Your task to perform on an android device: choose inbox layout in the gmail app Image 0: 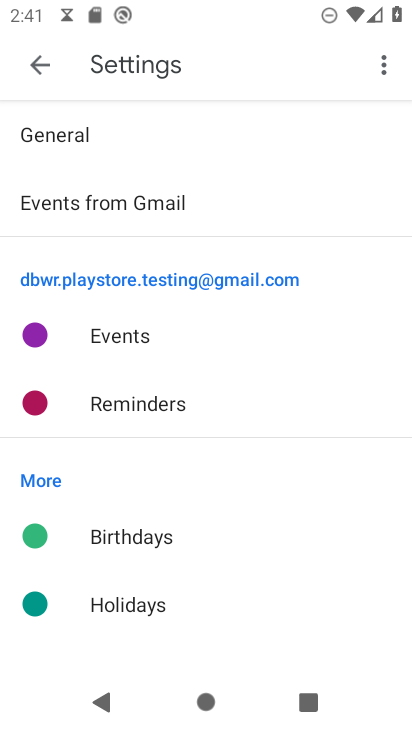
Step 0: press home button
Your task to perform on an android device: choose inbox layout in the gmail app Image 1: 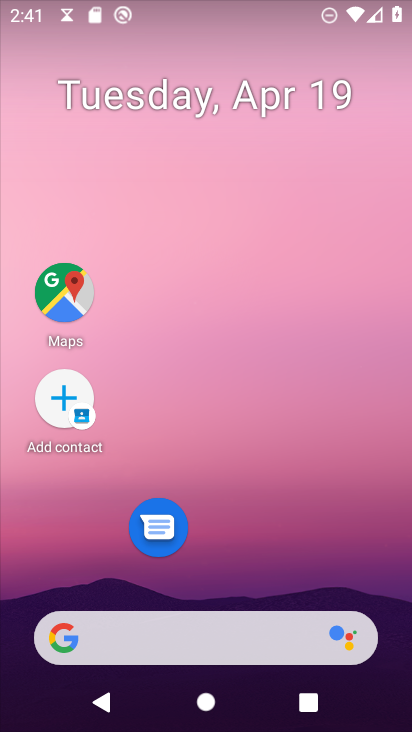
Step 1: drag from (238, 591) to (248, 29)
Your task to perform on an android device: choose inbox layout in the gmail app Image 2: 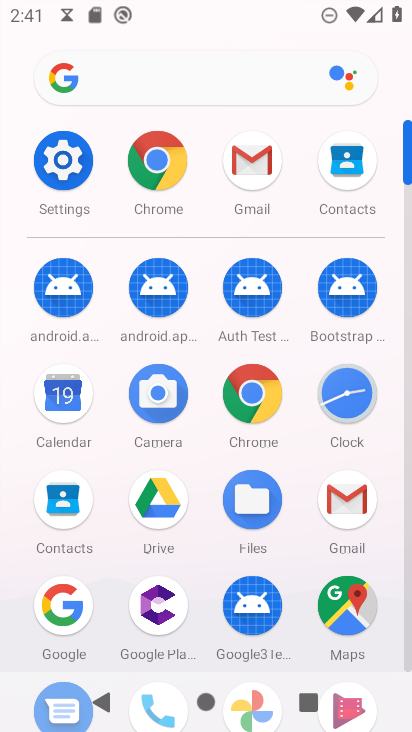
Step 2: click (252, 163)
Your task to perform on an android device: choose inbox layout in the gmail app Image 3: 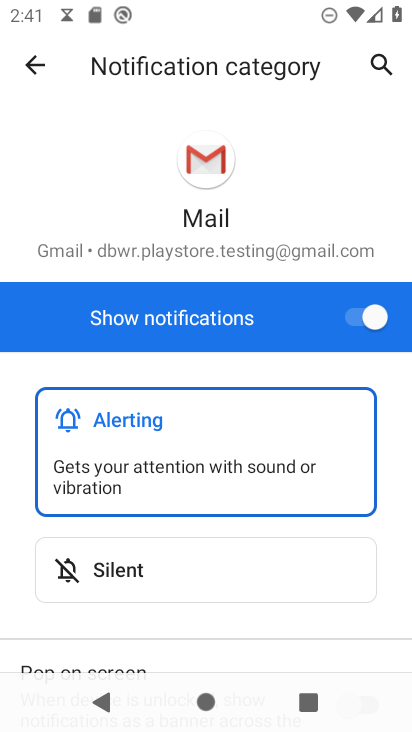
Step 3: press back button
Your task to perform on an android device: choose inbox layout in the gmail app Image 4: 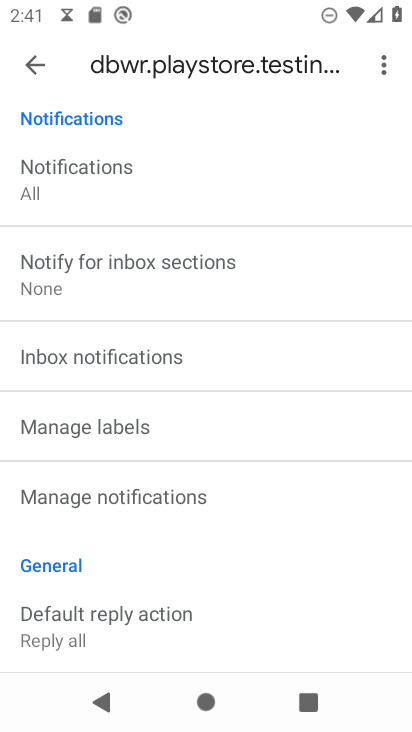
Step 4: drag from (153, 253) to (171, 396)
Your task to perform on an android device: choose inbox layout in the gmail app Image 5: 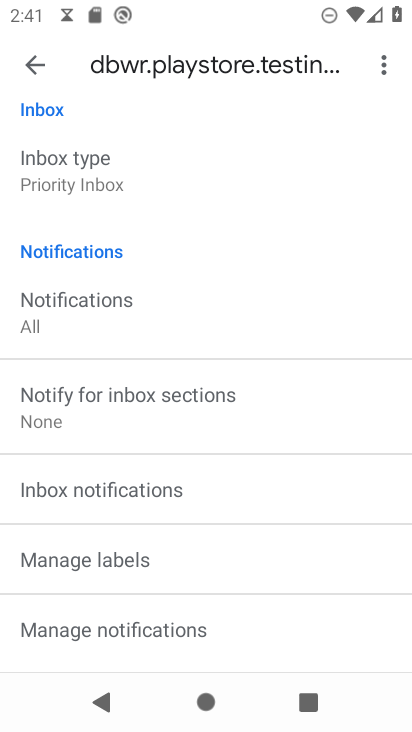
Step 5: drag from (133, 229) to (181, 379)
Your task to perform on an android device: choose inbox layout in the gmail app Image 6: 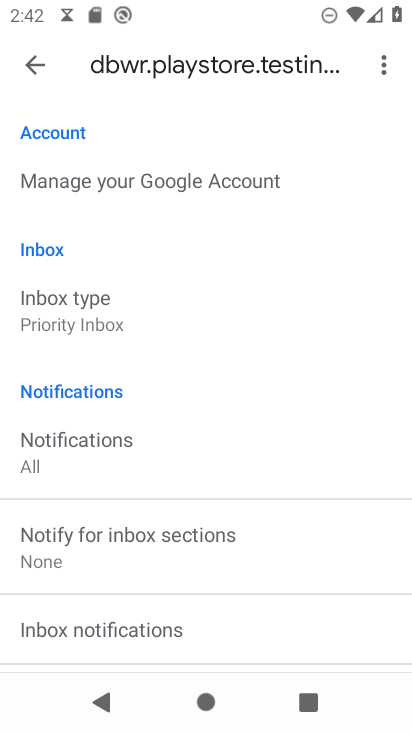
Step 6: click (88, 314)
Your task to perform on an android device: choose inbox layout in the gmail app Image 7: 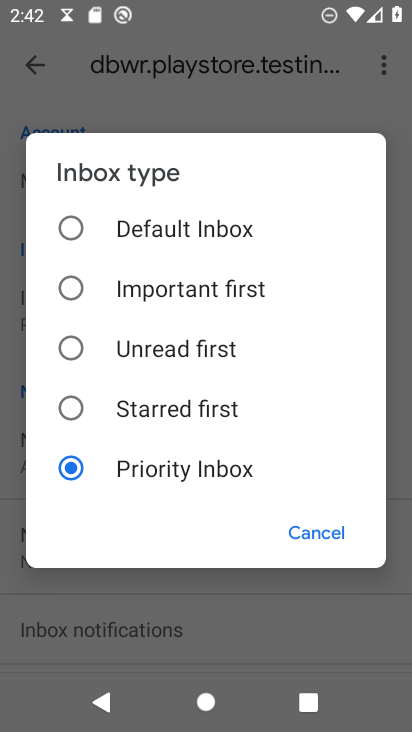
Step 7: click (63, 288)
Your task to perform on an android device: choose inbox layout in the gmail app Image 8: 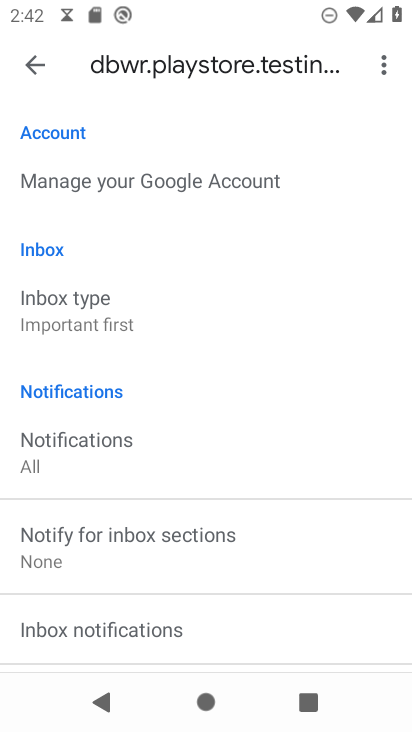
Step 8: task complete